Your task to perform on an android device: Install the Amazon app Image 0: 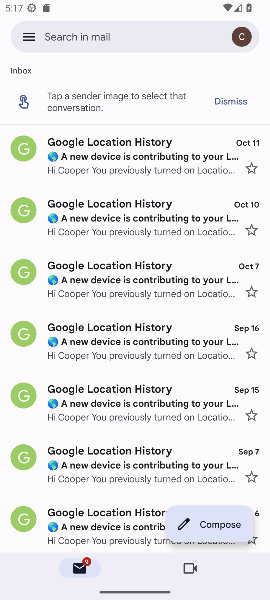
Step 0: press home button
Your task to perform on an android device: Install the Amazon app Image 1: 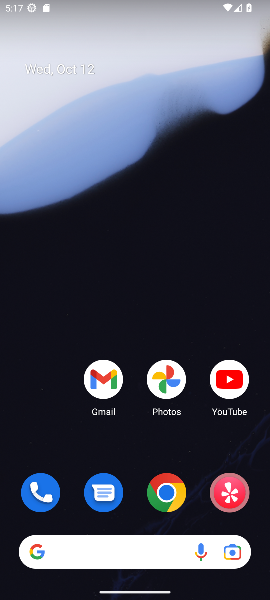
Step 1: drag from (190, 494) to (201, 41)
Your task to perform on an android device: Install the Amazon app Image 2: 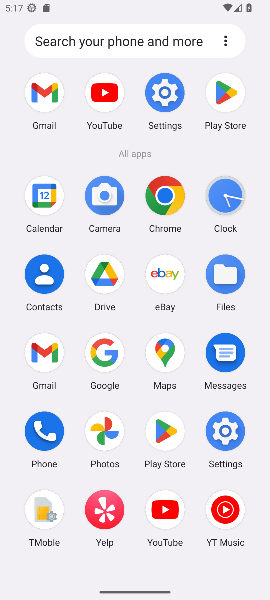
Step 2: click (162, 437)
Your task to perform on an android device: Install the Amazon app Image 3: 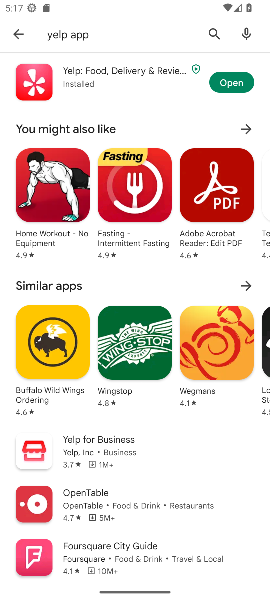
Step 3: click (121, 35)
Your task to perform on an android device: Install the Amazon app Image 4: 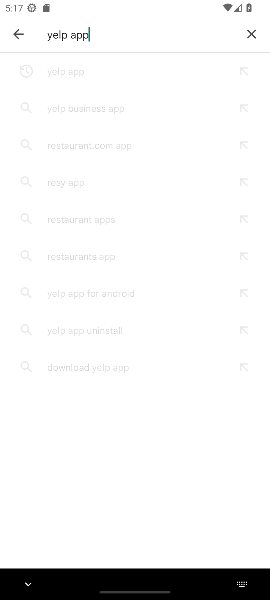
Step 4: click (211, 30)
Your task to perform on an android device: Install the Amazon app Image 5: 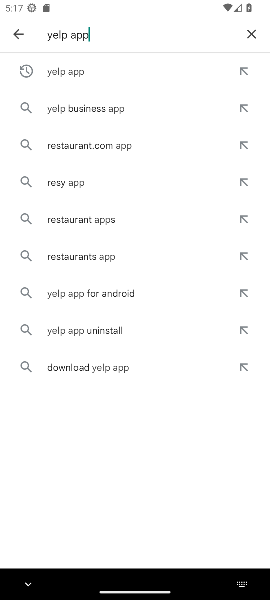
Step 5: click (252, 36)
Your task to perform on an android device: Install the Amazon app Image 6: 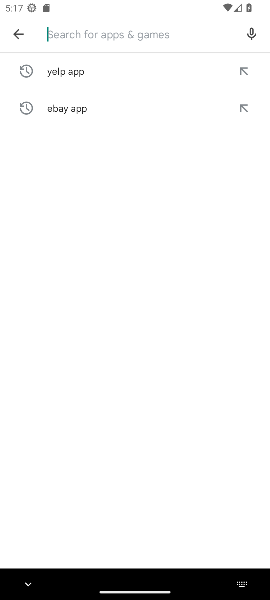
Step 6: type "amazon app"
Your task to perform on an android device: Install the Amazon app Image 7: 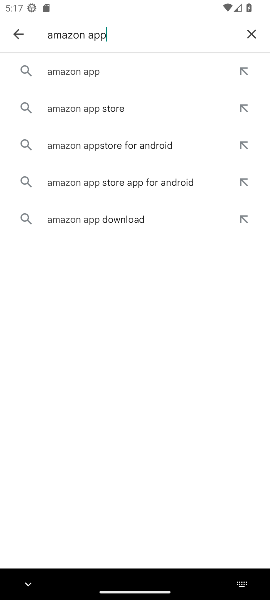
Step 7: click (81, 72)
Your task to perform on an android device: Install the Amazon app Image 8: 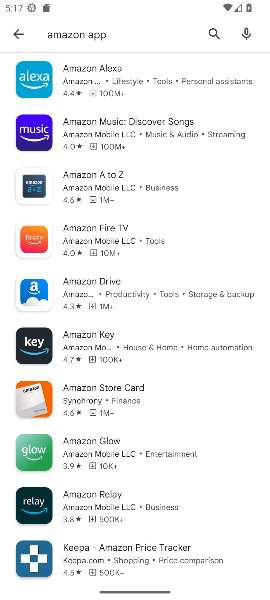
Step 8: task complete